Your task to perform on an android device: Go to Google Image 0: 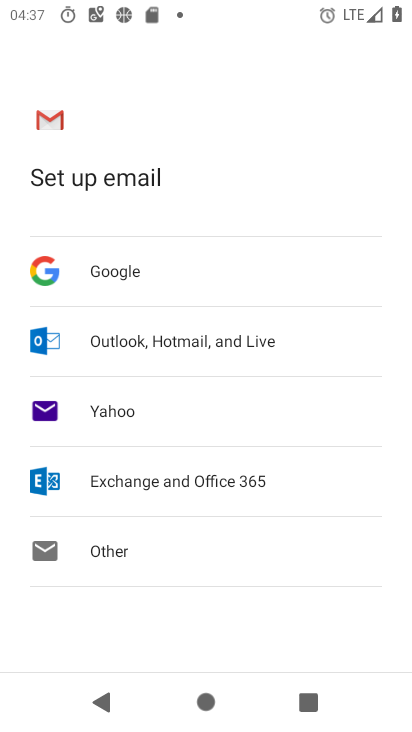
Step 0: press back button
Your task to perform on an android device: Go to Google Image 1: 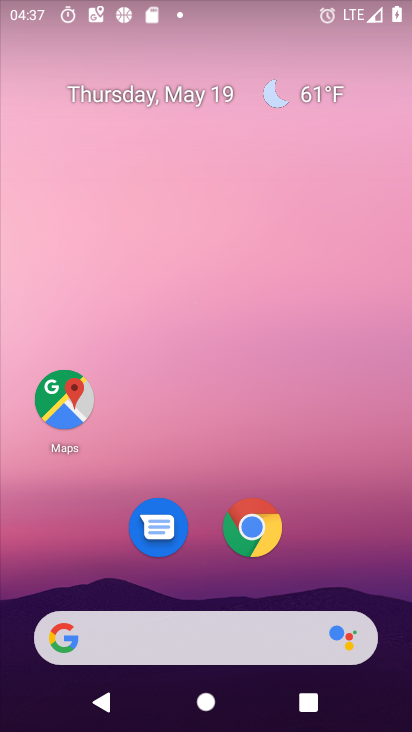
Step 1: drag from (191, 367) to (227, 64)
Your task to perform on an android device: Go to Google Image 2: 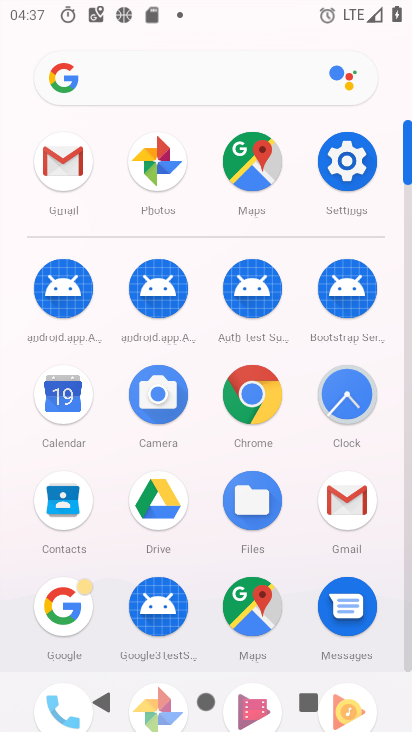
Step 2: click (64, 608)
Your task to perform on an android device: Go to Google Image 3: 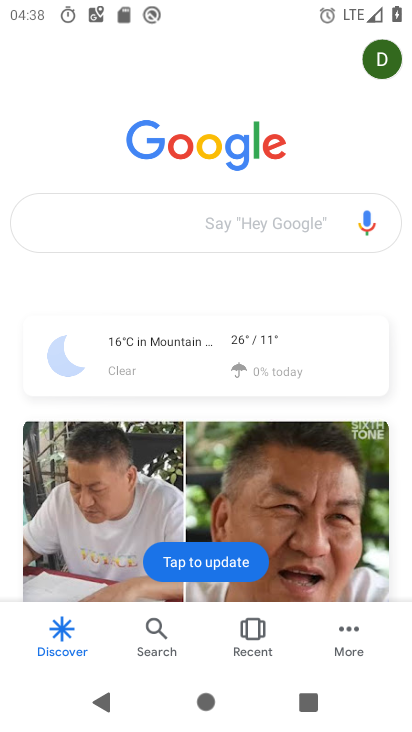
Step 3: task complete